Your task to perform on an android device: check data usage Image 0: 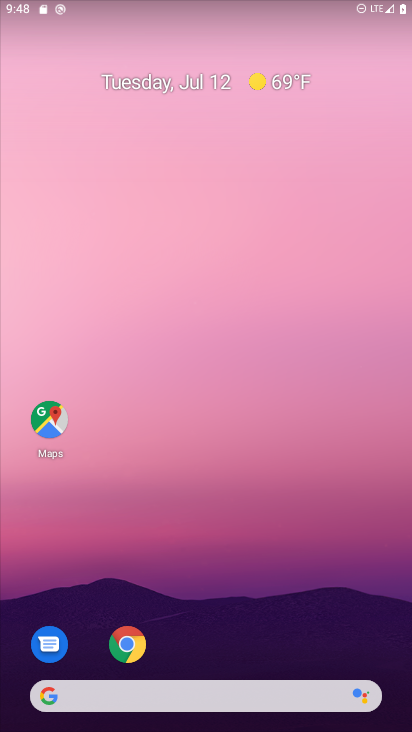
Step 0: press home button
Your task to perform on an android device: check data usage Image 1: 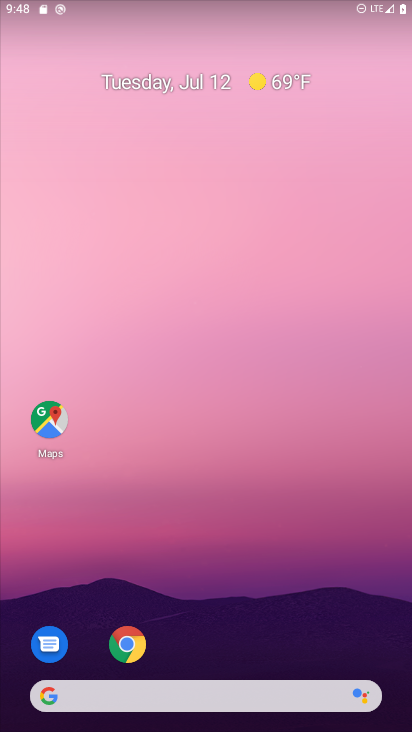
Step 1: drag from (226, 663) to (280, 17)
Your task to perform on an android device: check data usage Image 2: 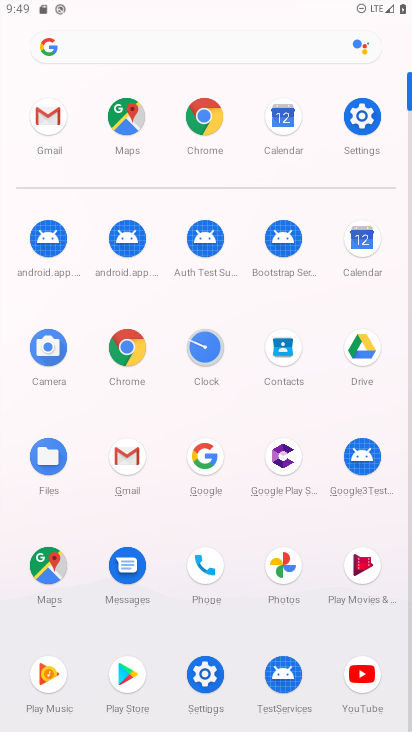
Step 2: click (358, 107)
Your task to perform on an android device: check data usage Image 3: 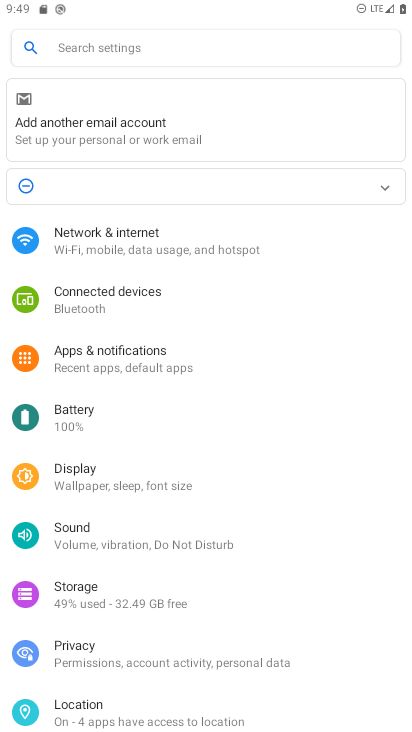
Step 3: click (167, 234)
Your task to perform on an android device: check data usage Image 4: 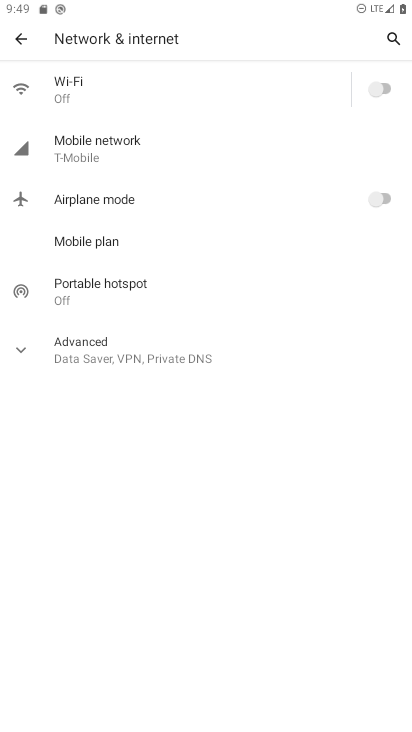
Step 4: click (133, 148)
Your task to perform on an android device: check data usage Image 5: 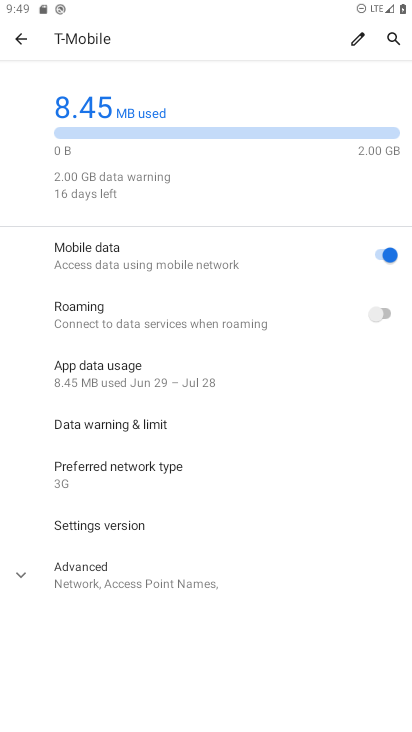
Step 5: click (155, 368)
Your task to perform on an android device: check data usage Image 6: 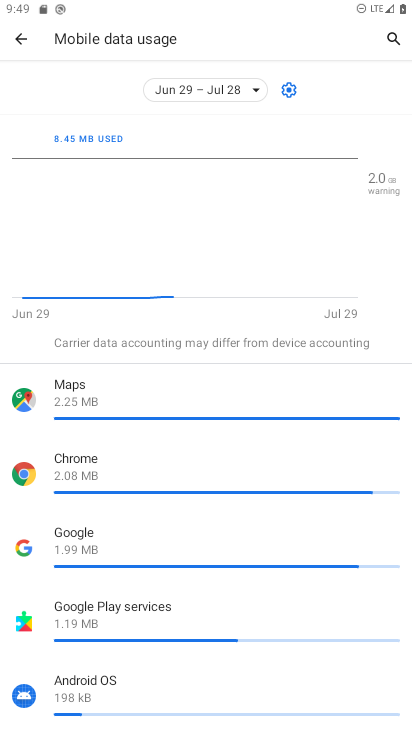
Step 6: task complete